Your task to perform on an android device: set default search engine in the chrome app Image 0: 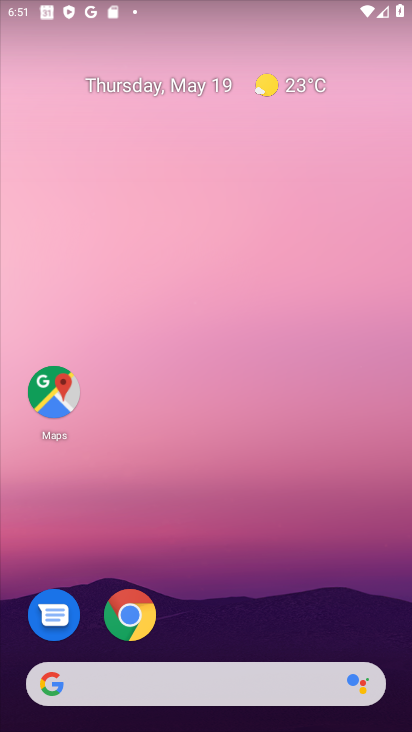
Step 0: drag from (293, 614) to (178, 53)
Your task to perform on an android device: set default search engine in the chrome app Image 1: 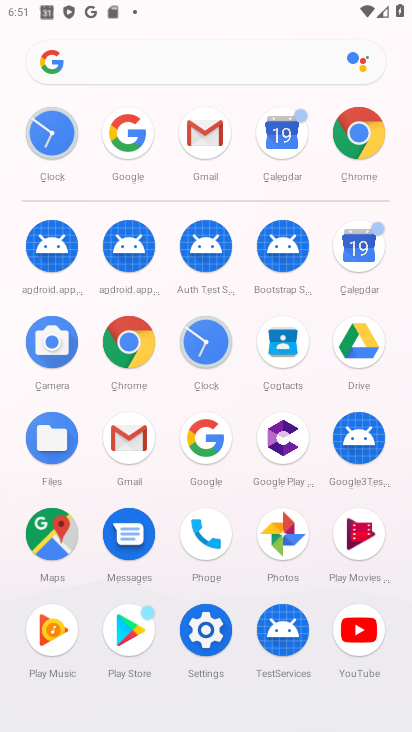
Step 1: click (348, 135)
Your task to perform on an android device: set default search engine in the chrome app Image 2: 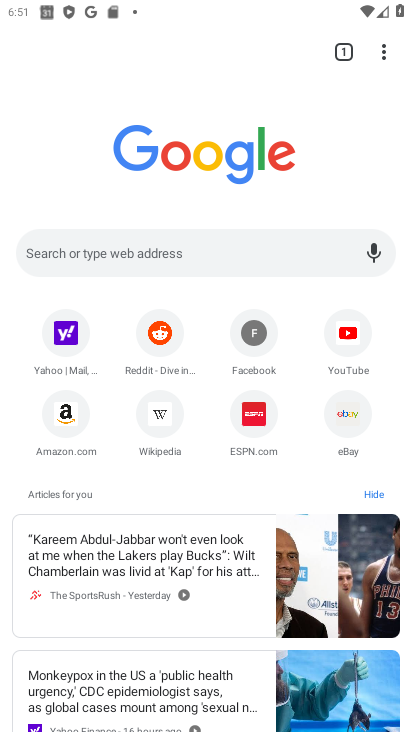
Step 2: click (390, 43)
Your task to perform on an android device: set default search engine in the chrome app Image 3: 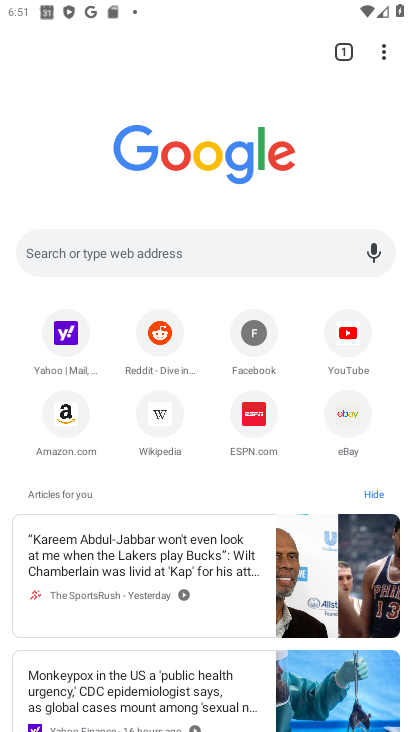
Step 3: click (380, 43)
Your task to perform on an android device: set default search engine in the chrome app Image 4: 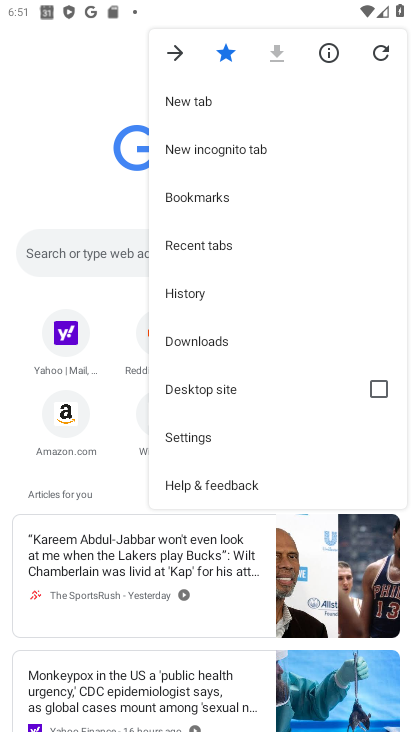
Step 4: click (221, 436)
Your task to perform on an android device: set default search engine in the chrome app Image 5: 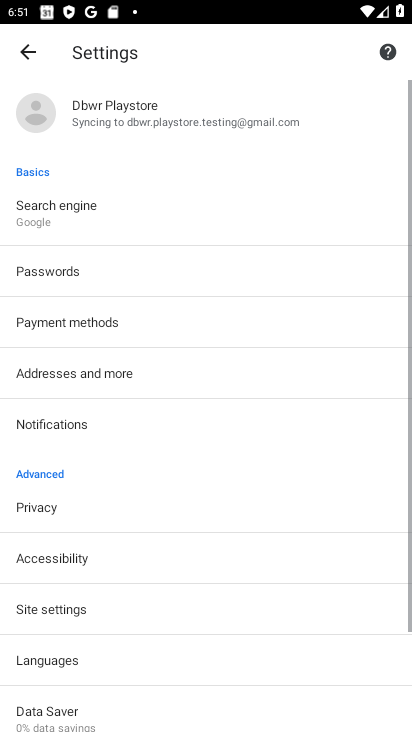
Step 5: click (146, 202)
Your task to perform on an android device: set default search engine in the chrome app Image 6: 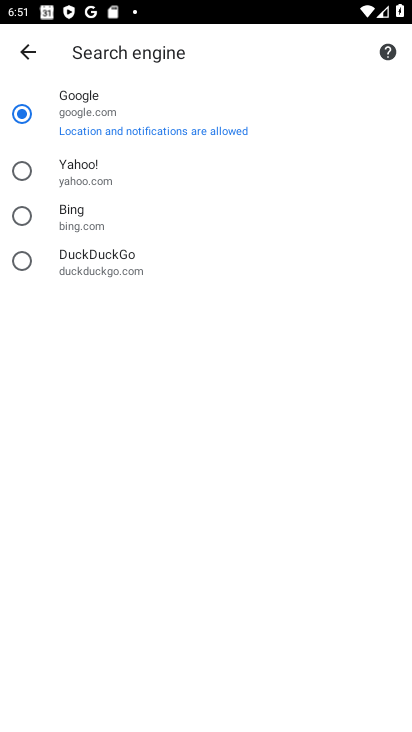
Step 6: click (146, 202)
Your task to perform on an android device: set default search engine in the chrome app Image 7: 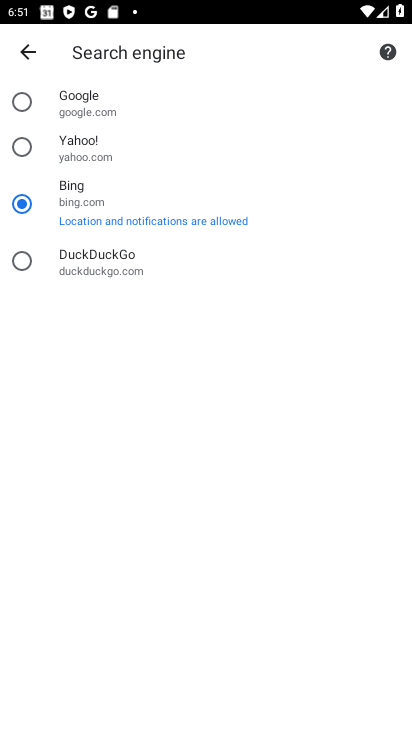
Step 7: task complete